Your task to perform on an android device: set the timer Image 0: 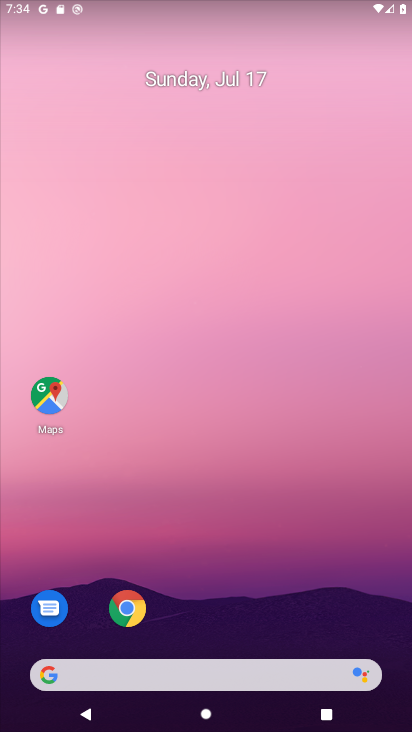
Step 0: drag from (211, 662) to (219, 203)
Your task to perform on an android device: set the timer Image 1: 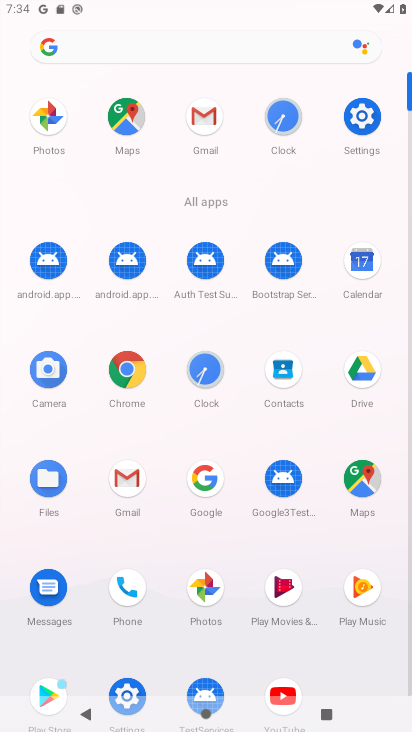
Step 1: click (205, 364)
Your task to perform on an android device: set the timer Image 2: 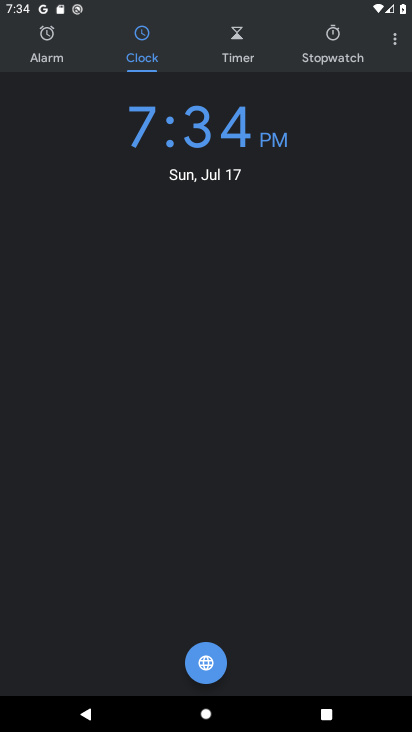
Step 2: click (245, 57)
Your task to perform on an android device: set the timer Image 3: 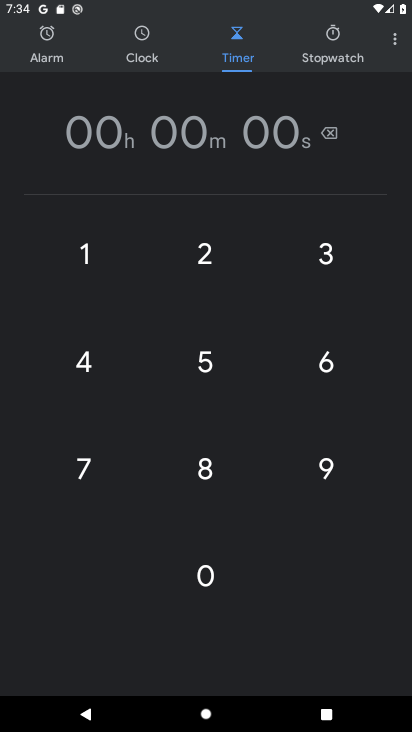
Step 3: click (213, 572)
Your task to perform on an android device: set the timer Image 4: 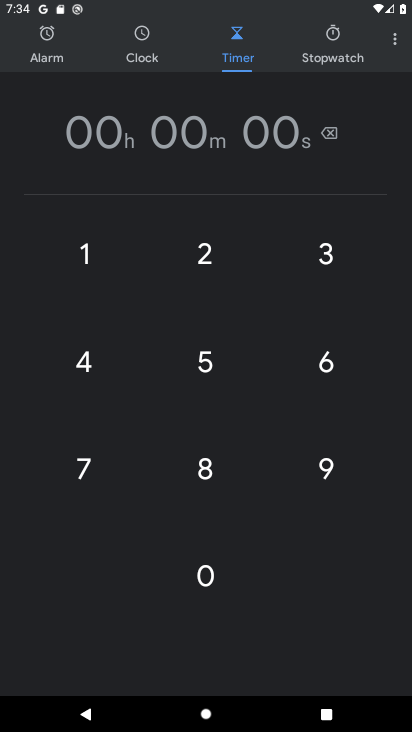
Step 4: click (195, 366)
Your task to perform on an android device: set the timer Image 5: 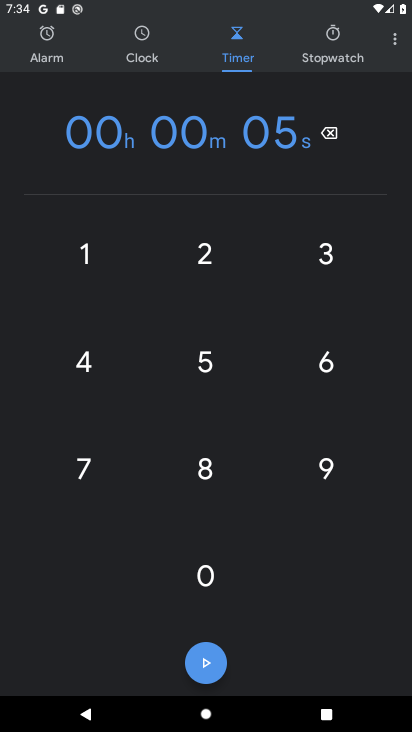
Step 5: click (209, 572)
Your task to perform on an android device: set the timer Image 6: 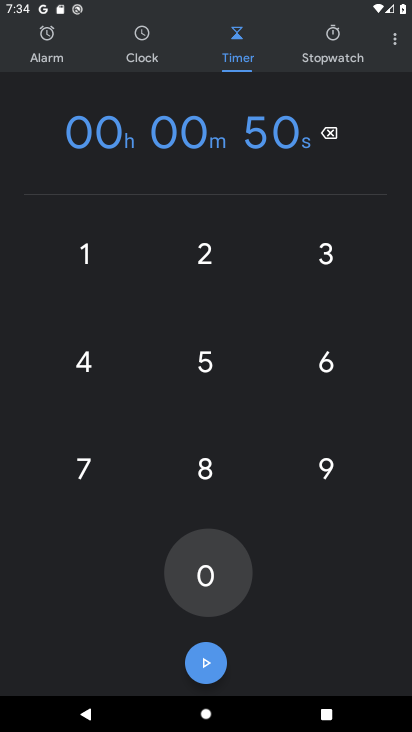
Step 6: click (209, 572)
Your task to perform on an android device: set the timer Image 7: 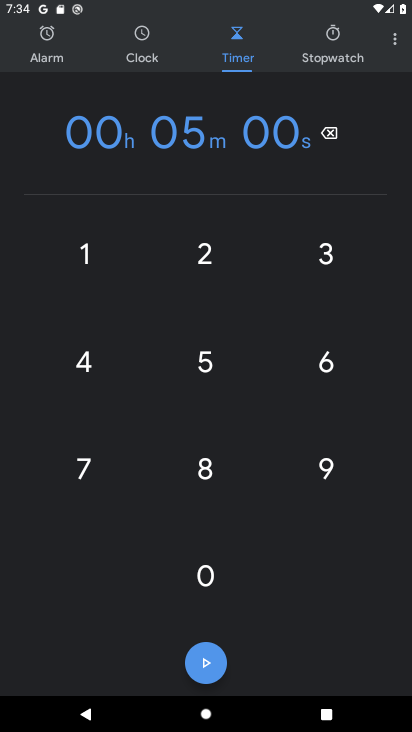
Step 7: click (208, 672)
Your task to perform on an android device: set the timer Image 8: 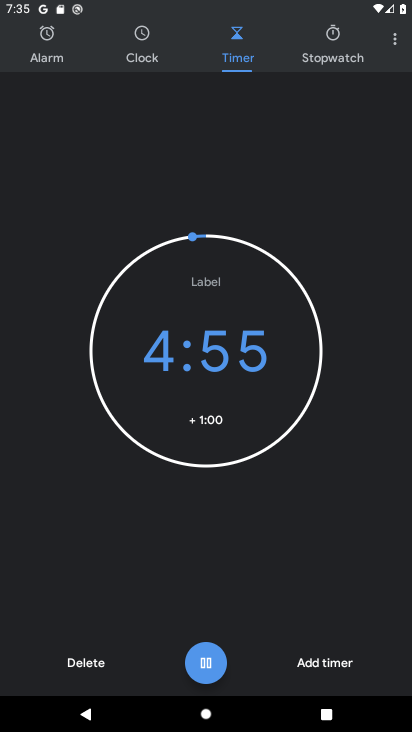
Step 8: task complete